Your task to perform on an android device: delete the emails in spam in the gmail app Image 0: 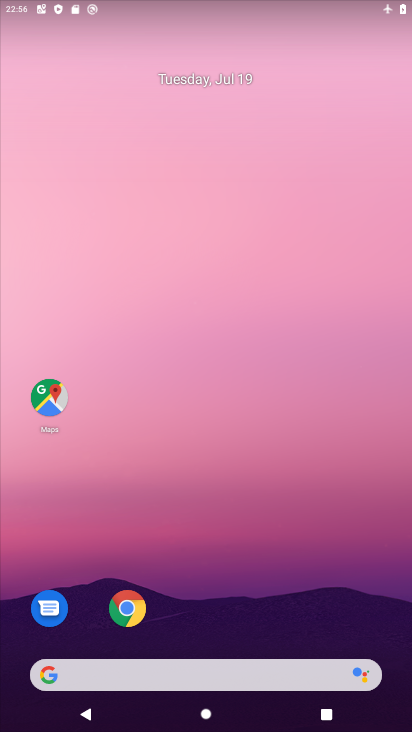
Step 0: drag from (261, 347) to (263, 72)
Your task to perform on an android device: delete the emails in spam in the gmail app Image 1: 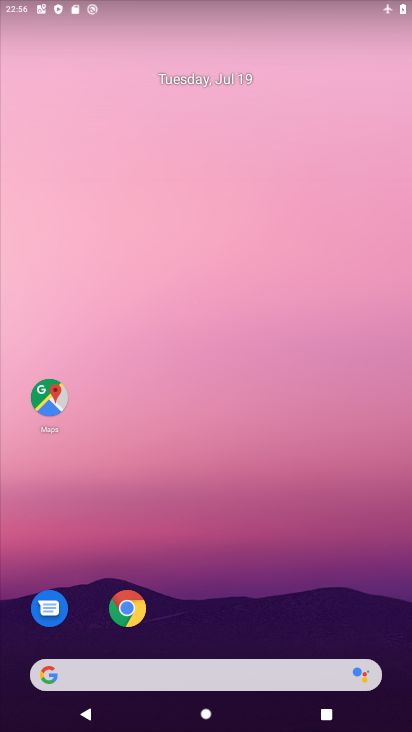
Step 1: drag from (297, 612) to (298, 134)
Your task to perform on an android device: delete the emails in spam in the gmail app Image 2: 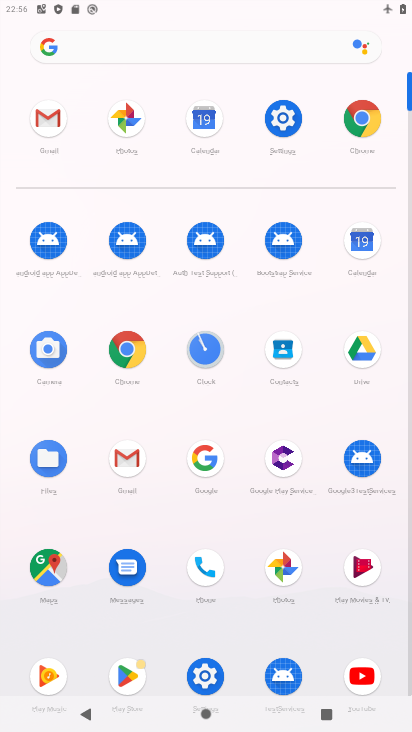
Step 2: click (45, 111)
Your task to perform on an android device: delete the emails in spam in the gmail app Image 3: 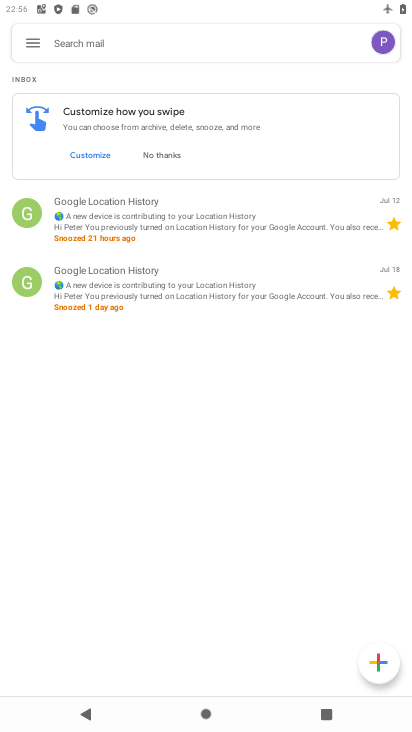
Step 3: click (36, 43)
Your task to perform on an android device: delete the emails in spam in the gmail app Image 4: 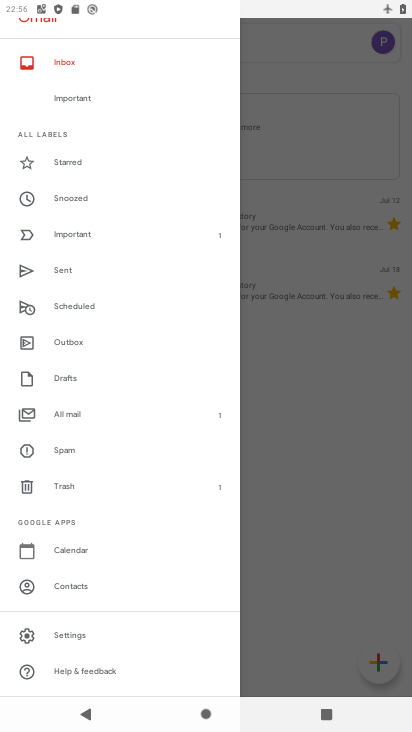
Step 4: click (81, 448)
Your task to perform on an android device: delete the emails in spam in the gmail app Image 5: 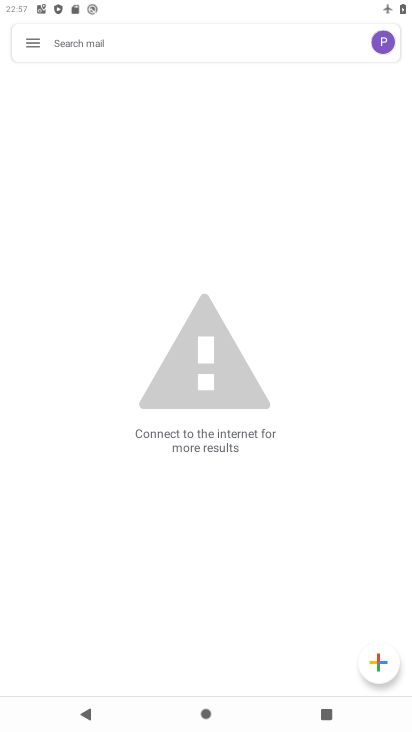
Step 5: task complete